Your task to perform on an android device: Go to settings Image 0: 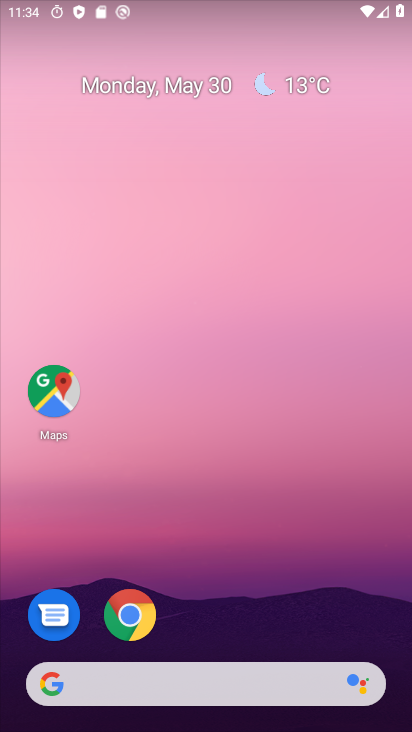
Step 0: drag from (199, 671) to (343, 96)
Your task to perform on an android device: Go to settings Image 1: 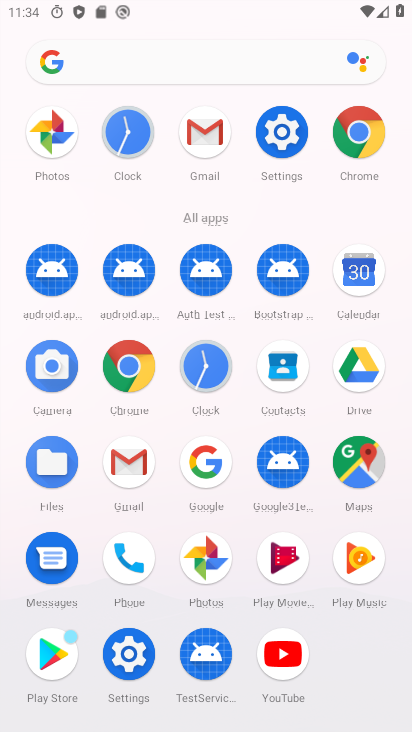
Step 1: drag from (222, 646) to (282, 416)
Your task to perform on an android device: Go to settings Image 2: 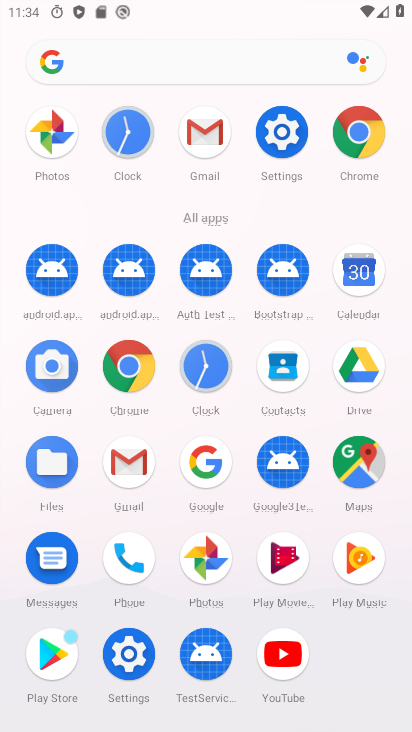
Step 2: click (127, 660)
Your task to perform on an android device: Go to settings Image 3: 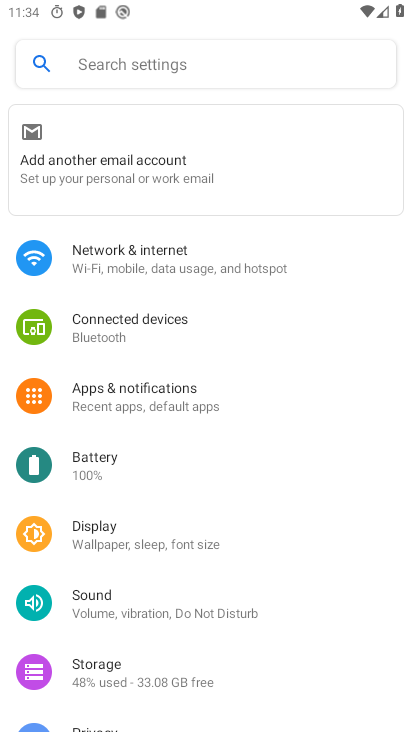
Step 3: task complete